Your task to perform on an android device: What is the news today? Image 0: 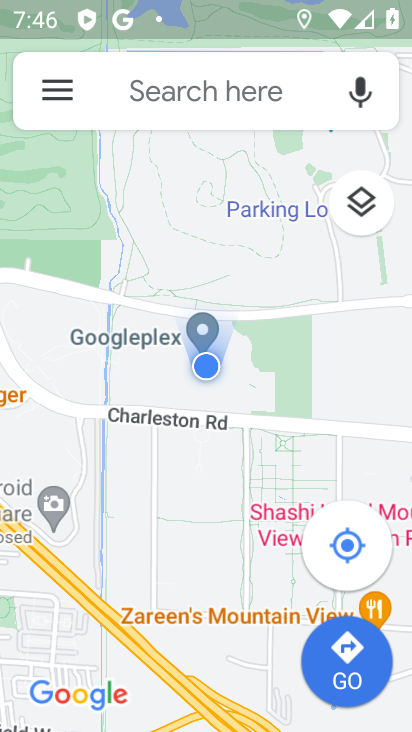
Step 0: press back button
Your task to perform on an android device: What is the news today? Image 1: 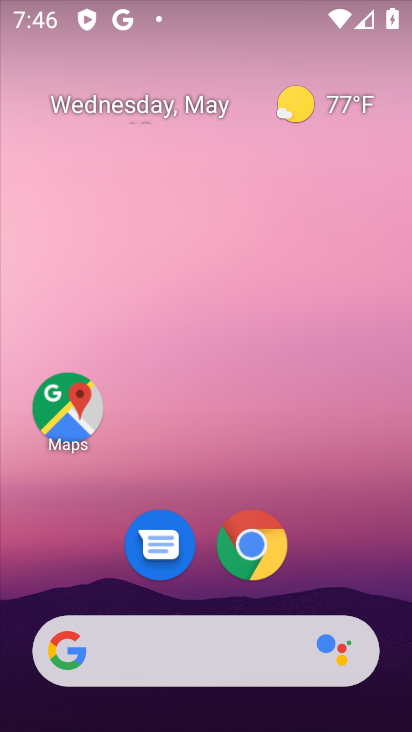
Step 1: drag from (329, 545) to (236, 91)
Your task to perform on an android device: What is the news today? Image 2: 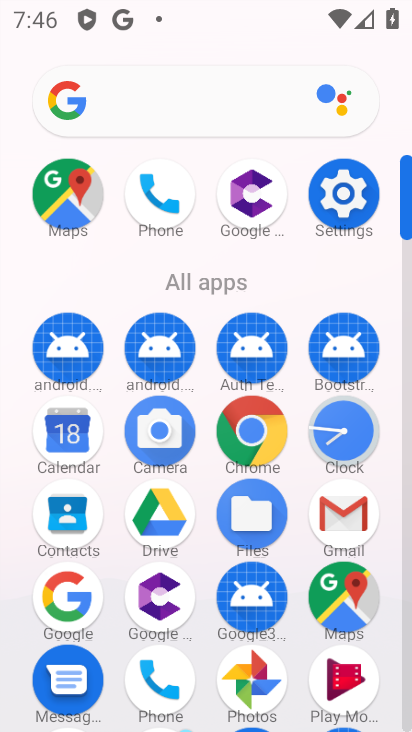
Step 2: drag from (212, 486) to (201, 243)
Your task to perform on an android device: What is the news today? Image 3: 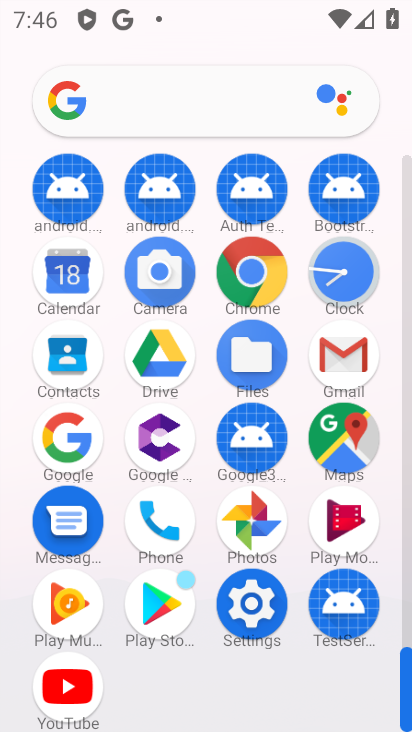
Step 3: click (60, 437)
Your task to perform on an android device: What is the news today? Image 4: 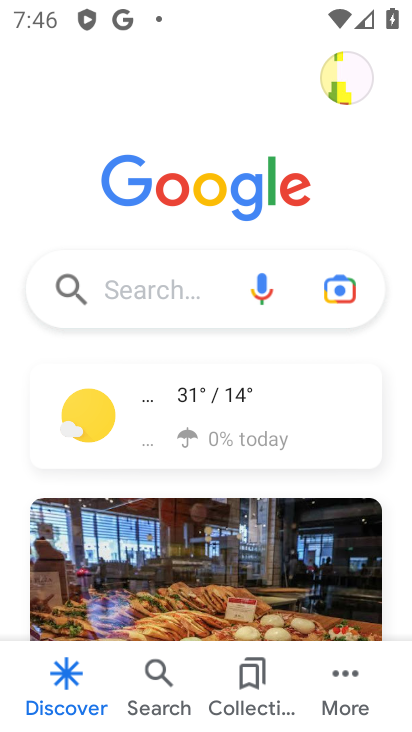
Step 4: click (146, 285)
Your task to perform on an android device: What is the news today? Image 5: 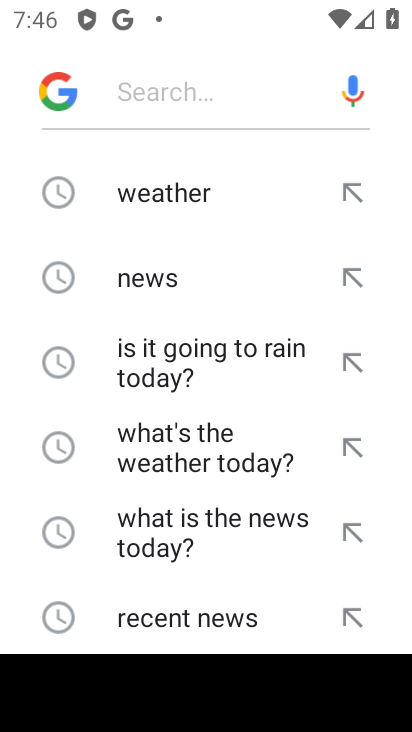
Step 5: click (229, 522)
Your task to perform on an android device: What is the news today? Image 6: 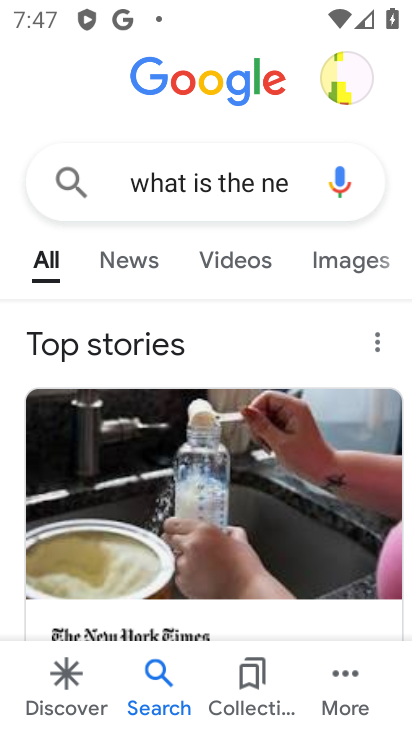
Step 6: task complete